Your task to perform on an android device: Open the map Image 0: 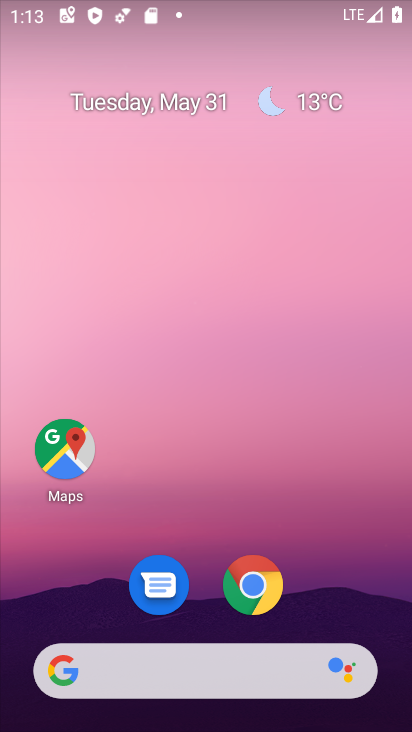
Step 0: click (67, 451)
Your task to perform on an android device: Open the map Image 1: 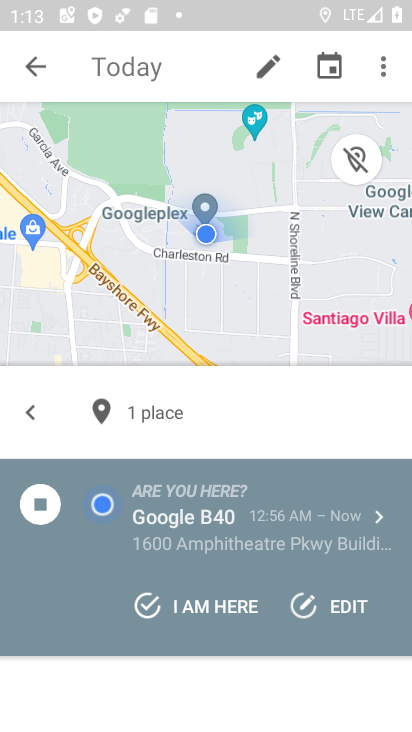
Step 1: click (33, 77)
Your task to perform on an android device: Open the map Image 2: 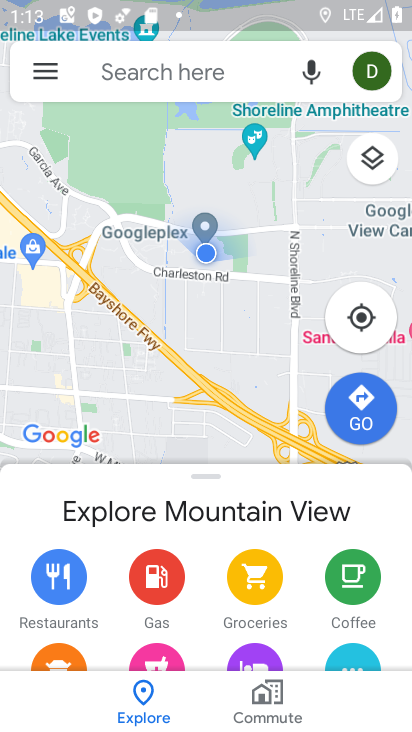
Step 2: task complete